Your task to perform on an android device: Go to Wikipedia Image 0: 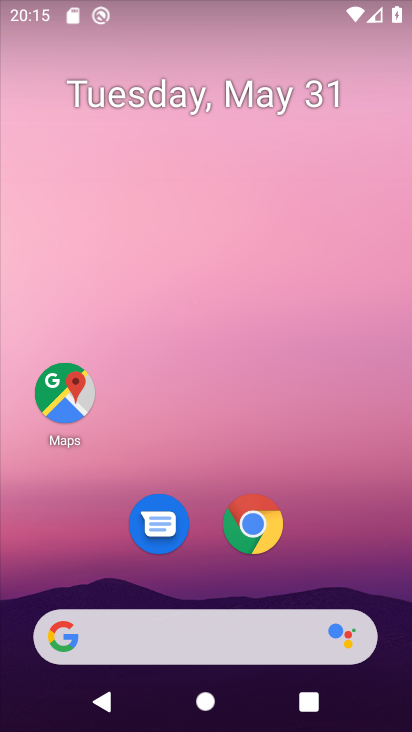
Step 0: click (257, 528)
Your task to perform on an android device: Go to Wikipedia Image 1: 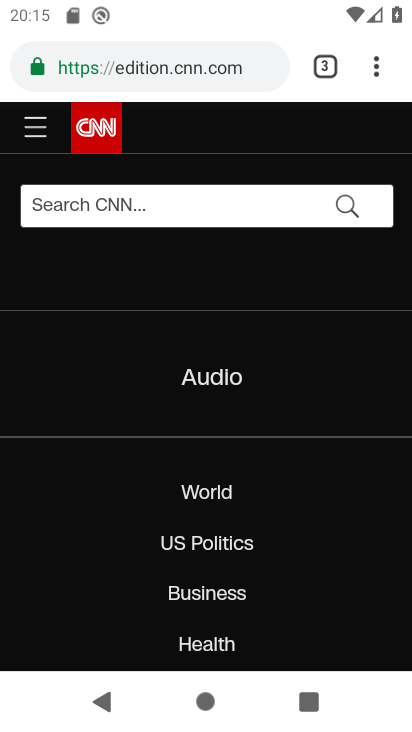
Step 1: click (370, 64)
Your task to perform on an android device: Go to Wikipedia Image 2: 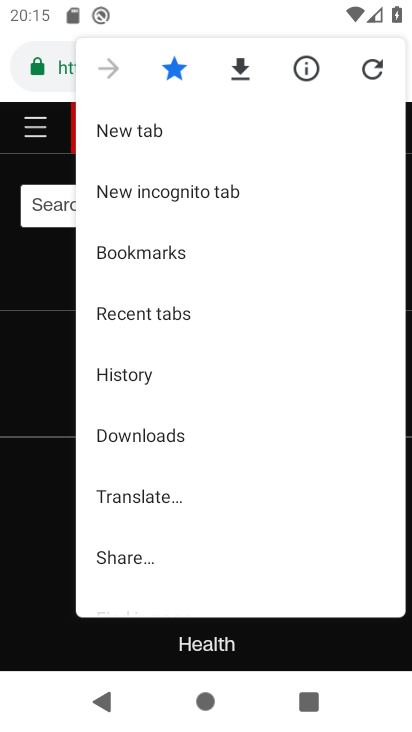
Step 2: click (291, 119)
Your task to perform on an android device: Go to Wikipedia Image 3: 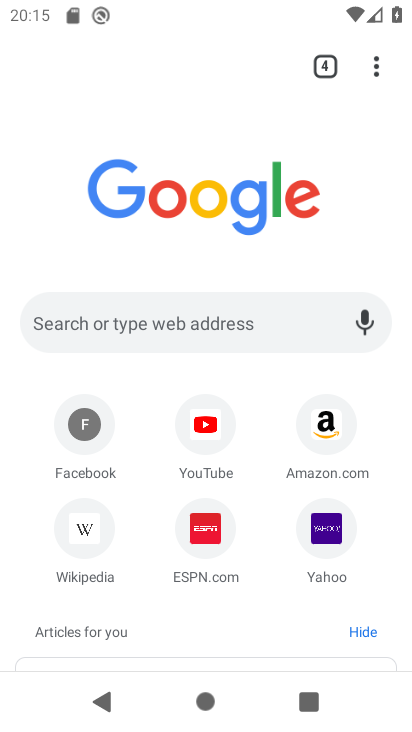
Step 3: click (84, 526)
Your task to perform on an android device: Go to Wikipedia Image 4: 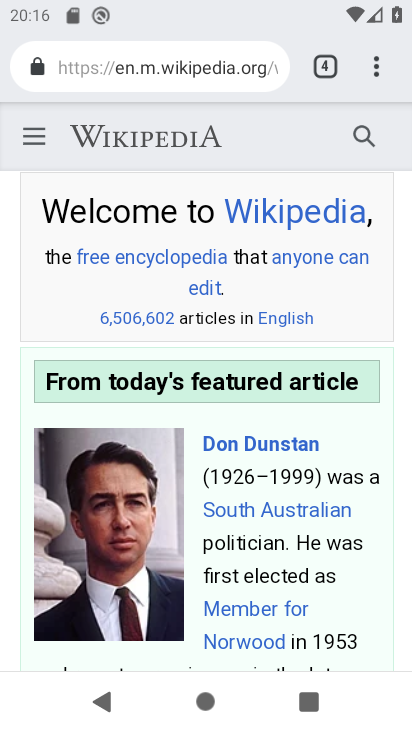
Step 4: task complete